Your task to perform on an android device: see tabs open on other devices in the chrome app Image 0: 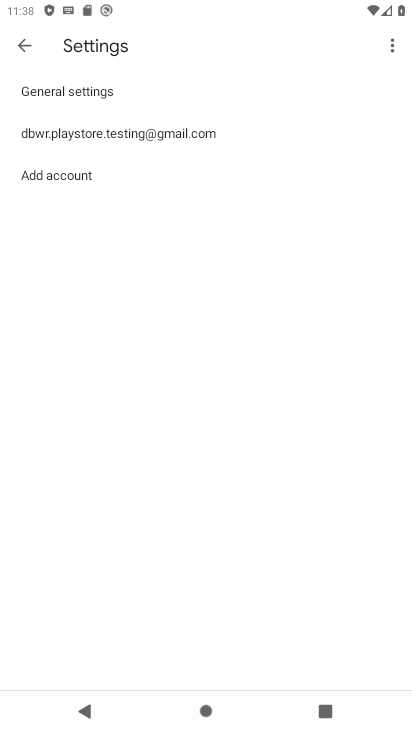
Step 0: press home button
Your task to perform on an android device: see tabs open on other devices in the chrome app Image 1: 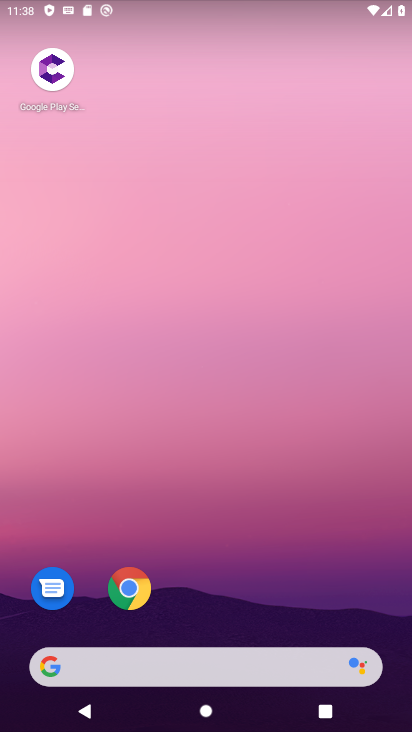
Step 1: click (134, 604)
Your task to perform on an android device: see tabs open on other devices in the chrome app Image 2: 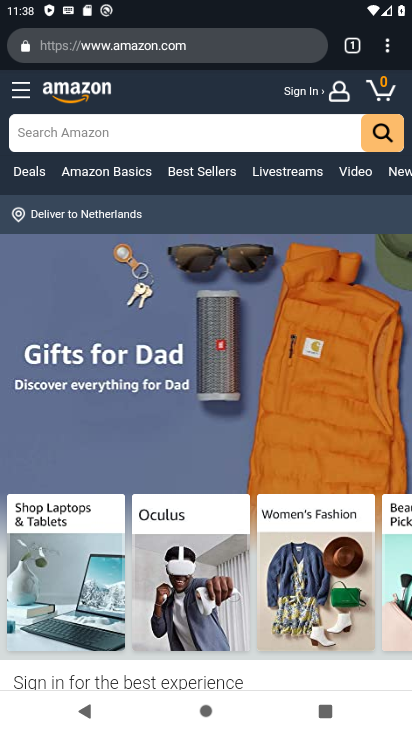
Step 2: click (390, 55)
Your task to perform on an android device: see tabs open on other devices in the chrome app Image 3: 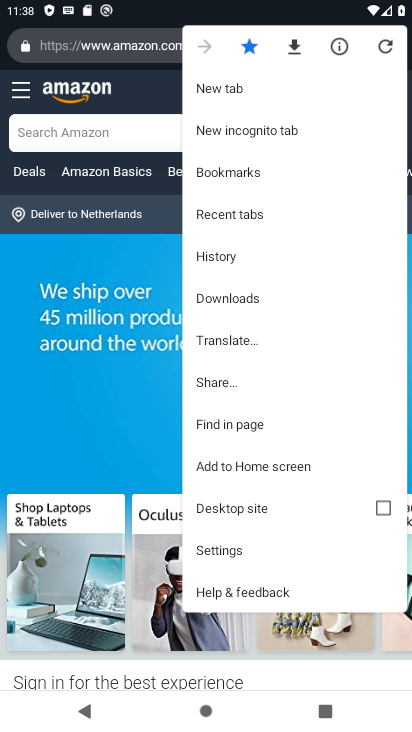
Step 3: click (310, 217)
Your task to perform on an android device: see tabs open on other devices in the chrome app Image 4: 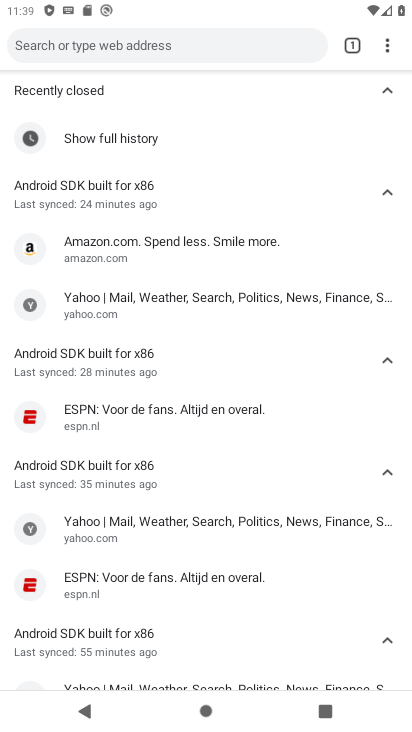
Step 4: task complete